Your task to perform on an android device: Check the news Image 0: 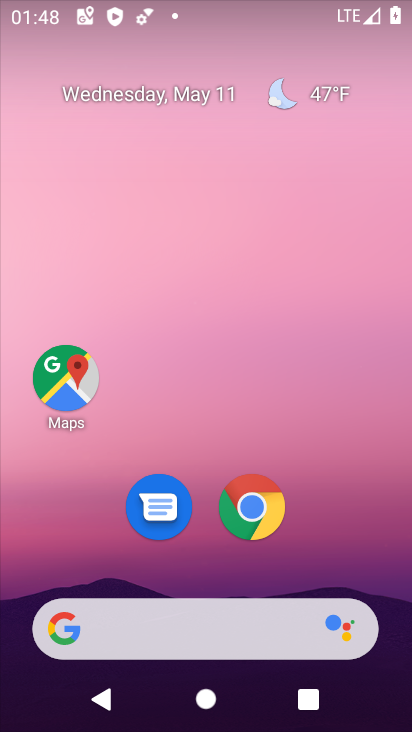
Step 0: drag from (8, 227) to (411, 262)
Your task to perform on an android device: Check the news Image 1: 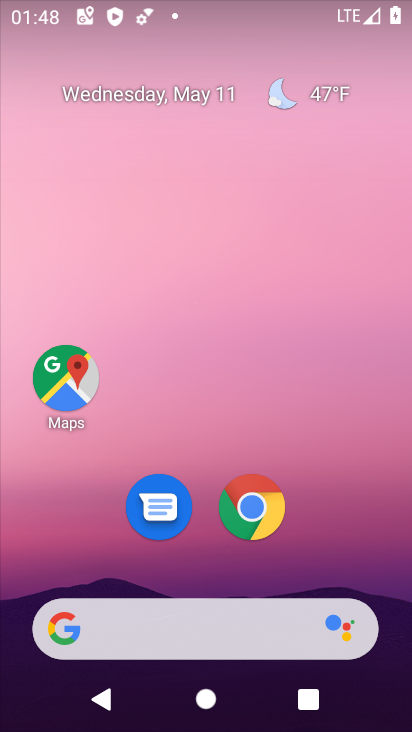
Step 1: task complete